Your task to perform on an android device: Check the weather Image 0: 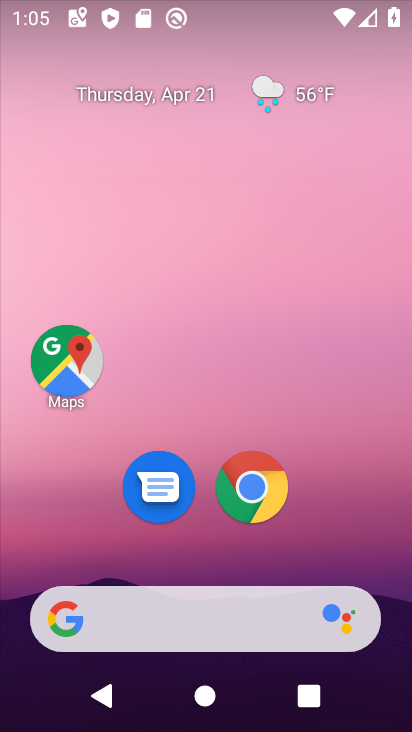
Step 0: click (301, 104)
Your task to perform on an android device: Check the weather Image 1: 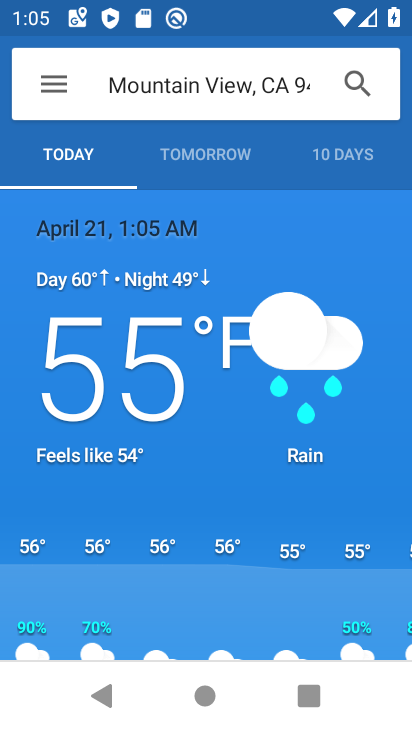
Step 1: task complete